Your task to perform on an android device: change the upload size in google photos Image 0: 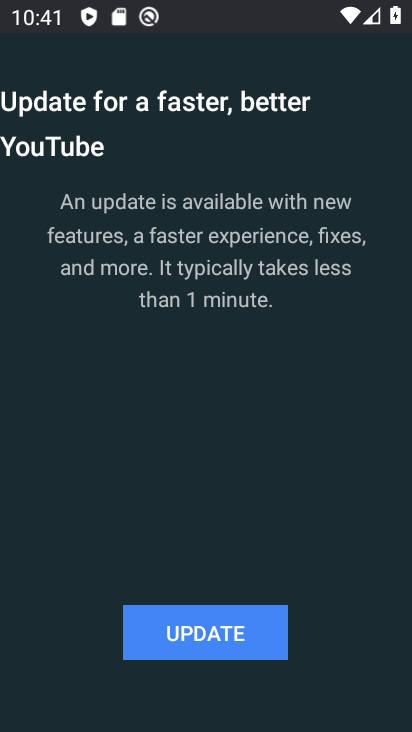
Step 0: press home button
Your task to perform on an android device: change the upload size in google photos Image 1: 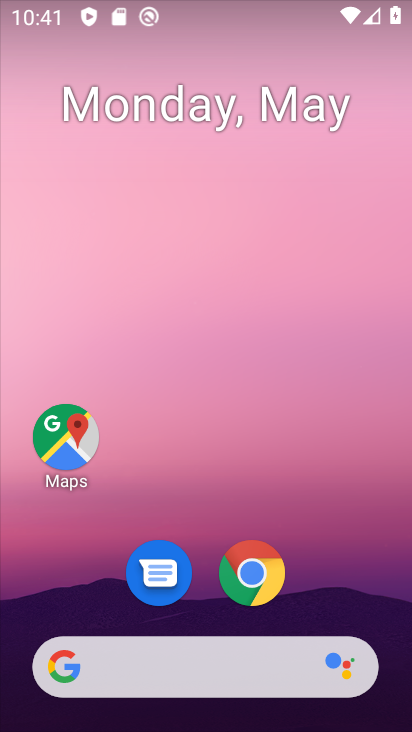
Step 1: drag from (196, 624) to (205, 281)
Your task to perform on an android device: change the upload size in google photos Image 2: 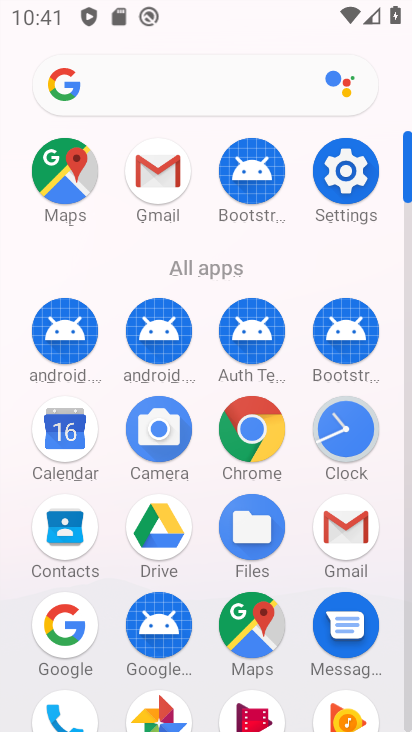
Step 2: drag from (217, 682) to (206, 437)
Your task to perform on an android device: change the upload size in google photos Image 3: 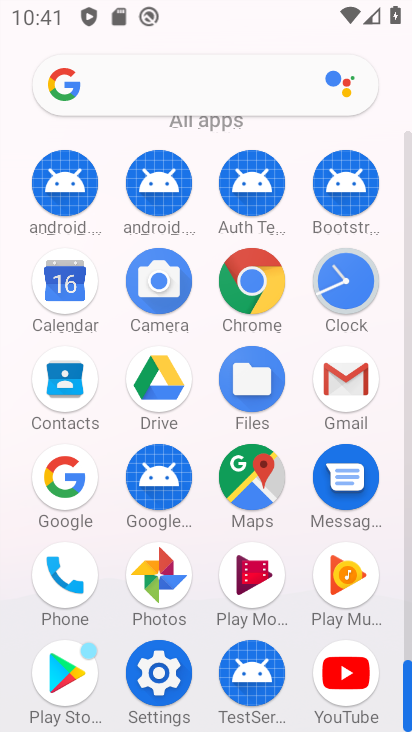
Step 3: click (162, 567)
Your task to perform on an android device: change the upload size in google photos Image 4: 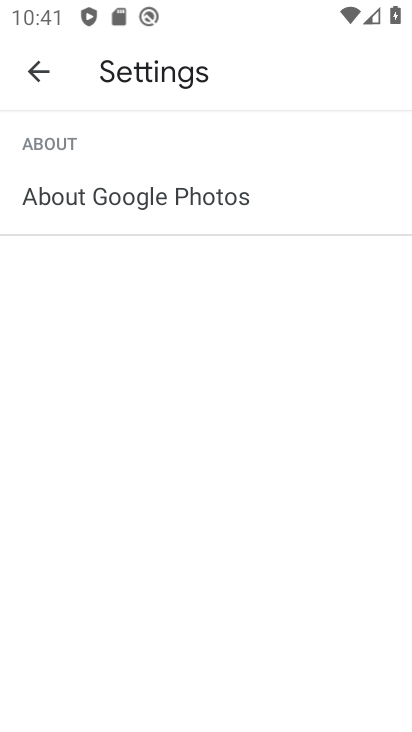
Step 4: click (40, 70)
Your task to perform on an android device: change the upload size in google photos Image 5: 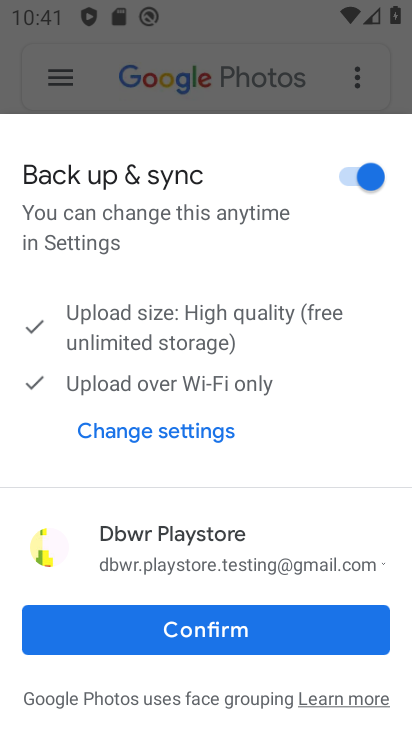
Step 5: click (59, 79)
Your task to perform on an android device: change the upload size in google photos Image 6: 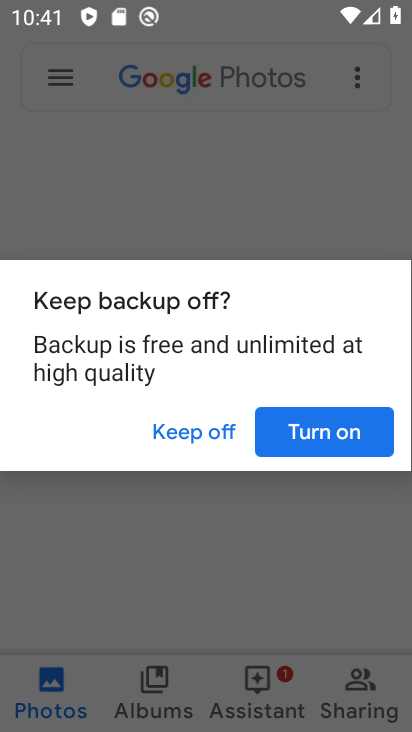
Step 6: click (215, 637)
Your task to perform on an android device: change the upload size in google photos Image 7: 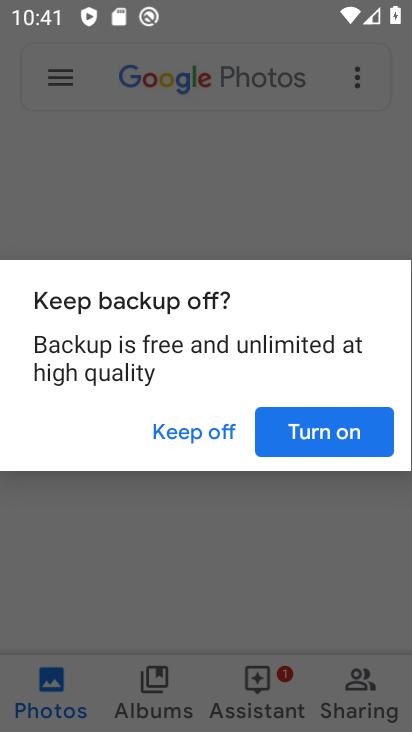
Step 7: click (272, 439)
Your task to perform on an android device: change the upload size in google photos Image 8: 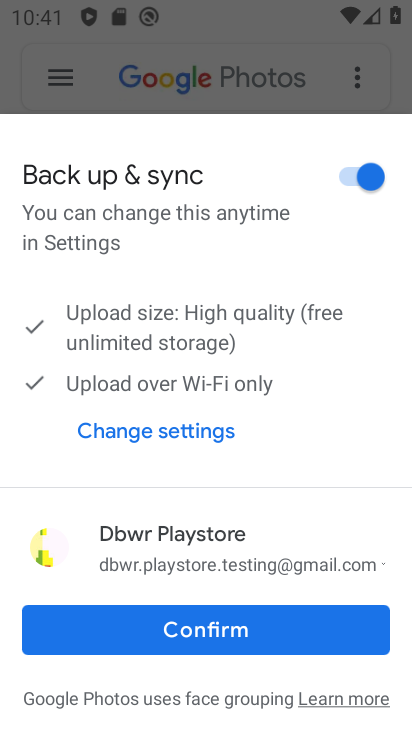
Step 8: click (216, 644)
Your task to perform on an android device: change the upload size in google photos Image 9: 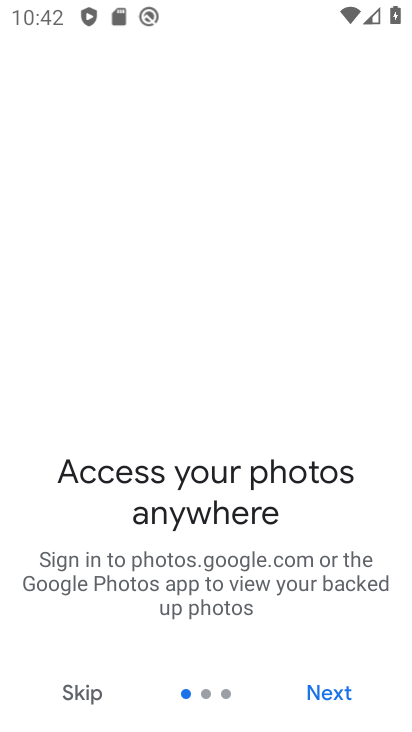
Step 9: click (336, 689)
Your task to perform on an android device: change the upload size in google photos Image 10: 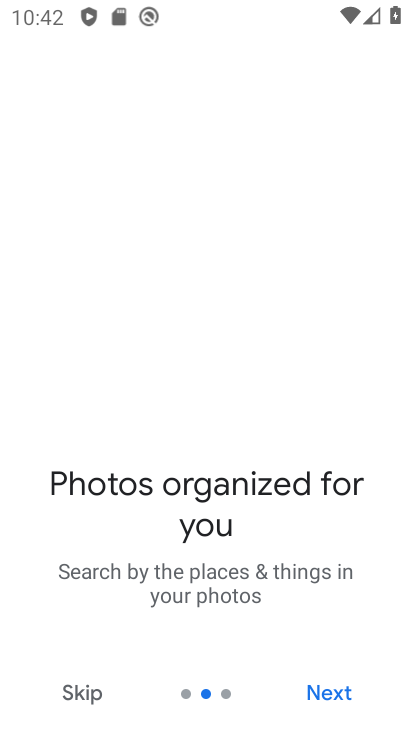
Step 10: click (336, 689)
Your task to perform on an android device: change the upload size in google photos Image 11: 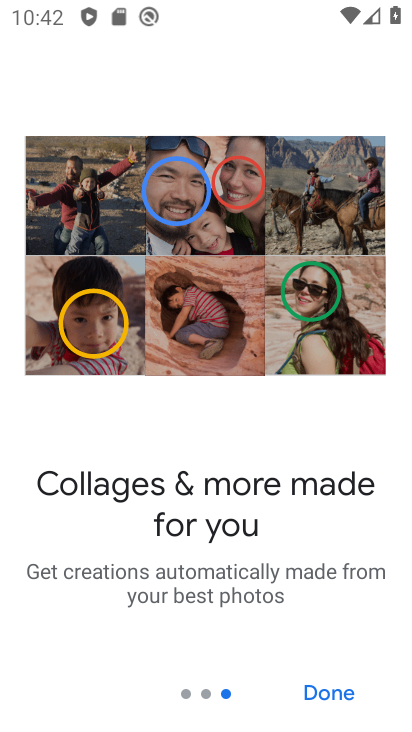
Step 11: click (335, 689)
Your task to perform on an android device: change the upload size in google photos Image 12: 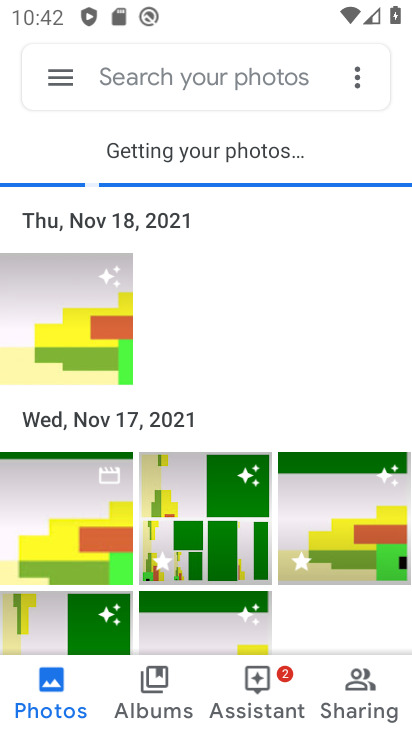
Step 12: click (59, 76)
Your task to perform on an android device: change the upload size in google photos Image 13: 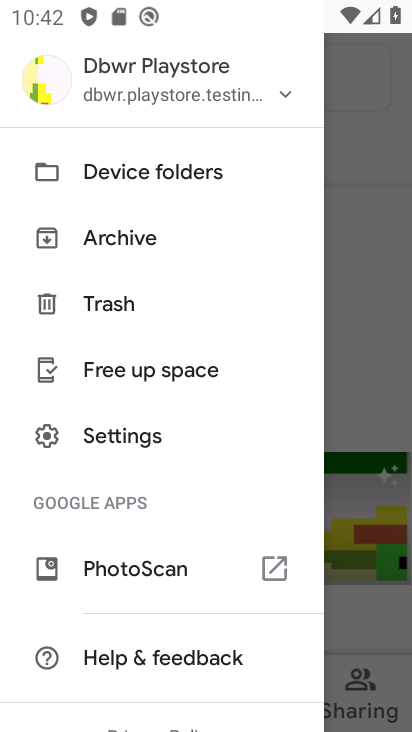
Step 13: drag from (129, 682) to (127, 369)
Your task to perform on an android device: change the upload size in google photos Image 14: 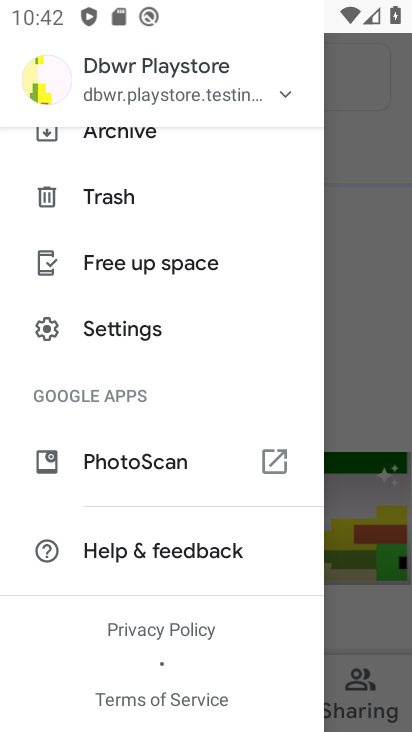
Step 14: click (124, 327)
Your task to perform on an android device: change the upload size in google photos Image 15: 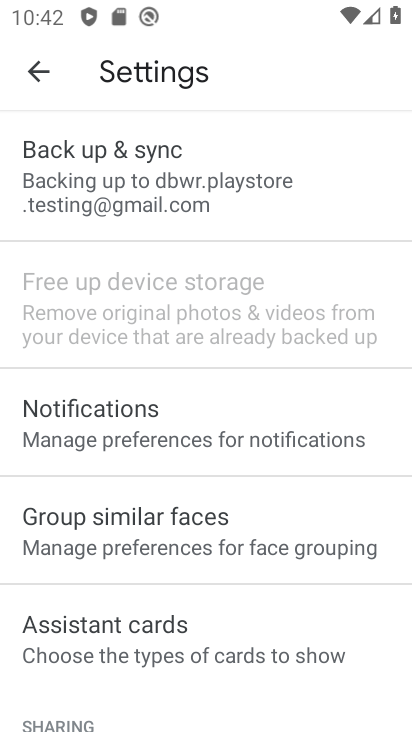
Step 15: click (121, 163)
Your task to perform on an android device: change the upload size in google photos Image 16: 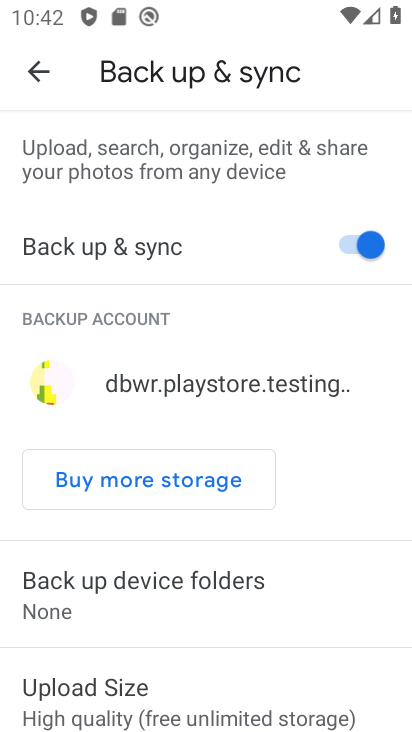
Step 16: click (83, 714)
Your task to perform on an android device: change the upload size in google photos Image 17: 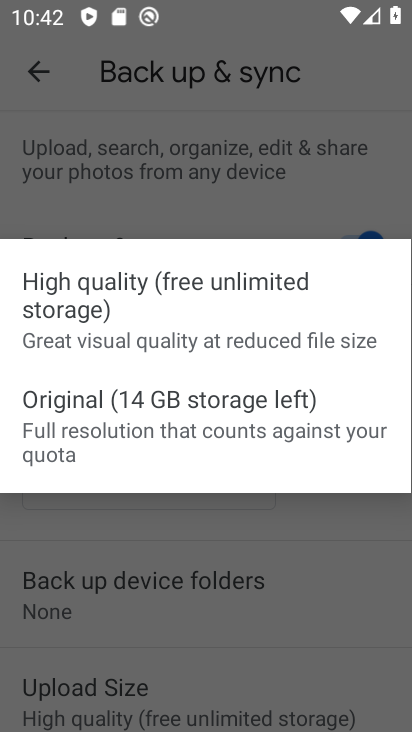
Step 17: click (70, 416)
Your task to perform on an android device: change the upload size in google photos Image 18: 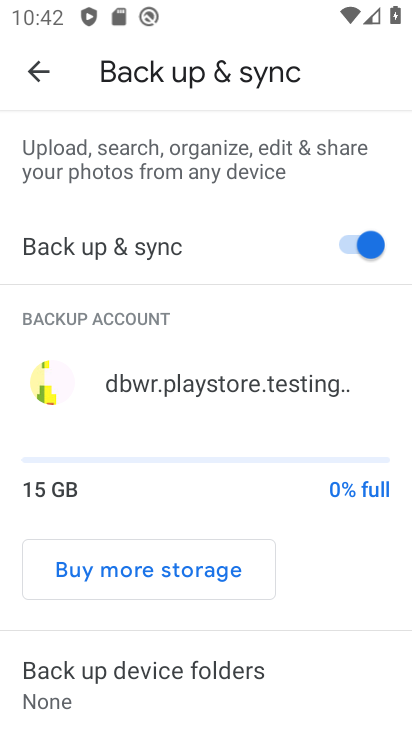
Step 18: task complete